Your task to perform on an android device: Go to privacy settings Image 0: 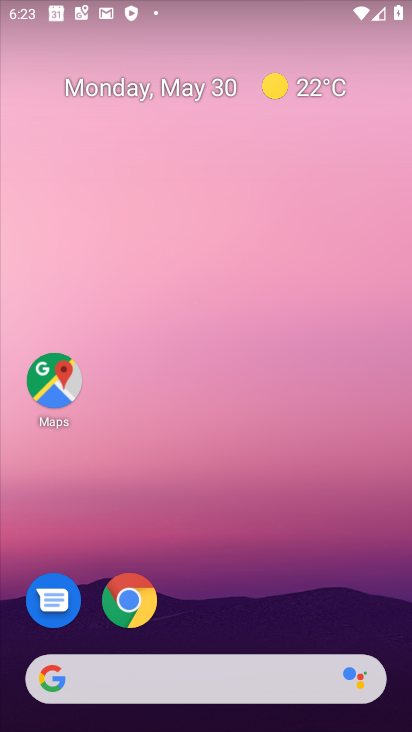
Step 0: press home button
Your task to perform on an android device: Go to privacy settings Image 1: 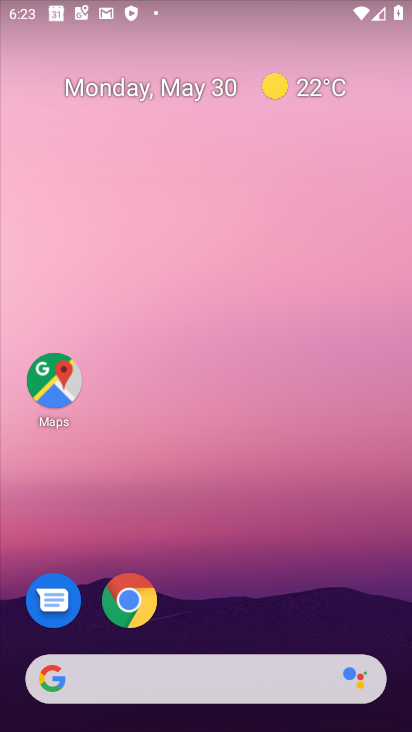
Step 1: drag from (282, 610) to (237, 210)
Your task to perform on an android device: Go to privacy settings Image 2: 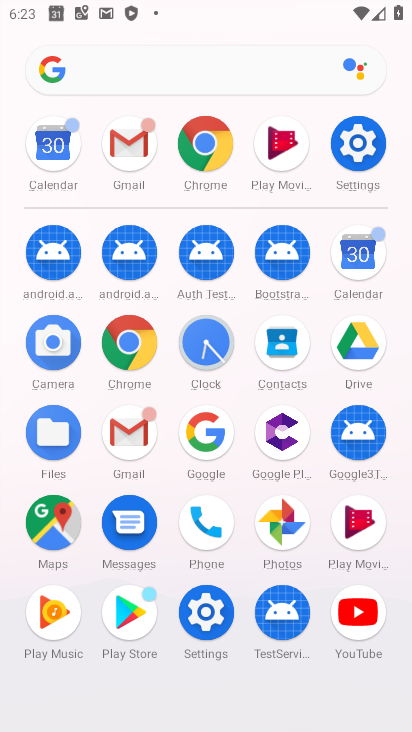
Step 2: click (357, 160)
Your task to perform on an android device: Go to privacy settings Image 3: 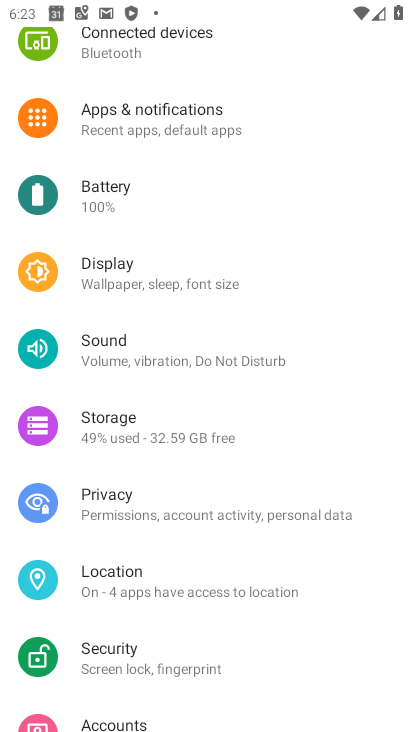
Step 3: click (116, 512)
Your task to perform on an android device: Go to privacy settings Image 4: 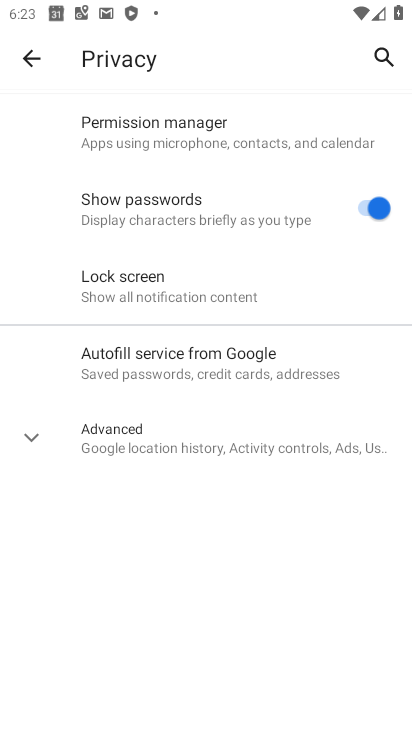
Step 4: task complete